Your task to perform on an android device: Open Google Chrome Image 0: 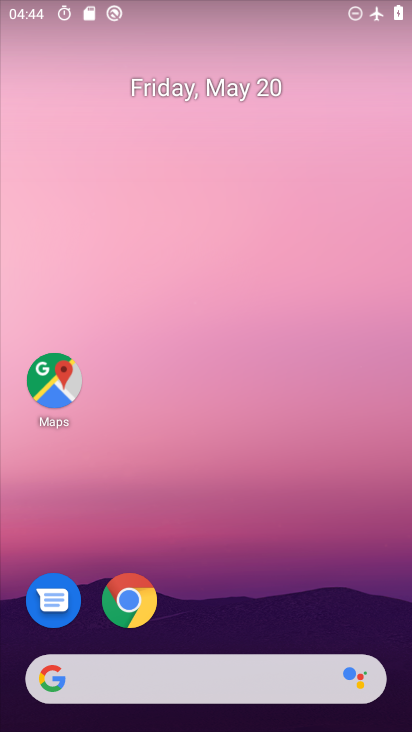
Step 0: click (140, 600)
Your task to perform on an android device: Open Google Chrome Image 1: 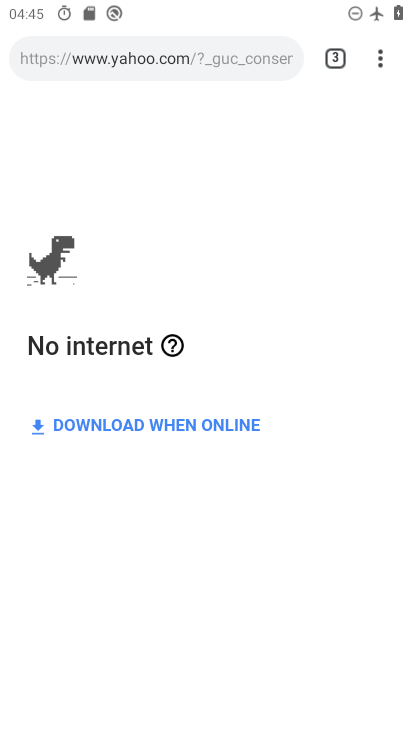
Step 1: task complete